Your task to perform on an android device: Open calendar and show me the second week of next month Image 0: 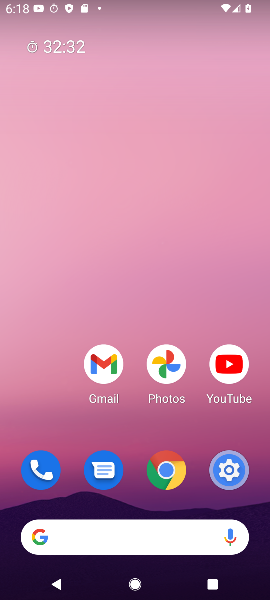
Step 0: press home button
Your task to perform on an android device: Open calendar and show me the second week of next month Image 1: 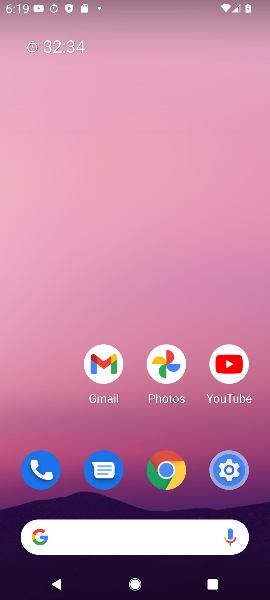
Step 1: drag from (175, 491) to (155, 83)
Your task to perform on an android device: Open calendar and show me the second week of next month Image 2: 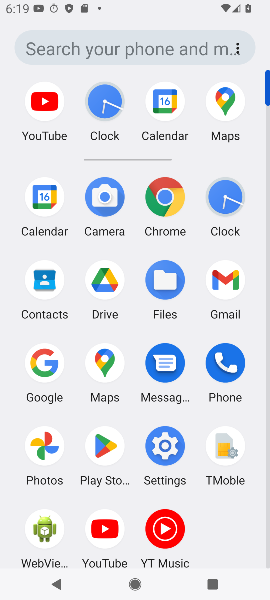
Step 2: click (45, 199)
Your task to perform on an android device: Open calendar and show me the second week of next month Image 3: 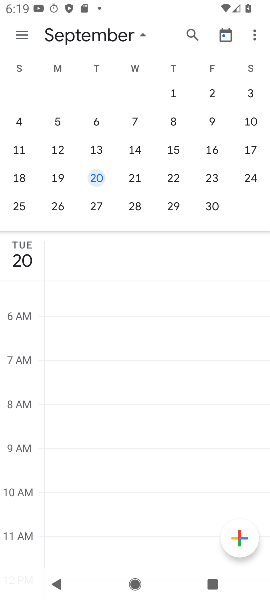
Step 3: click (94, 145)
Your task to perform on an android device: Open calendar and show me the second week of next month Image 4: 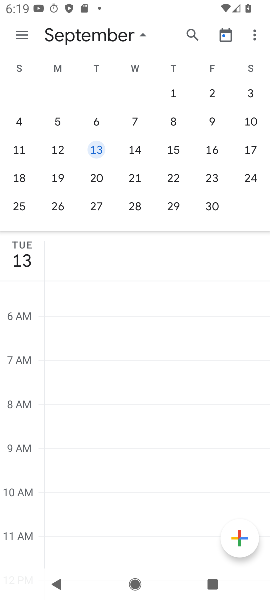
Step 4: task complete